Your task to perform on an android device: Open wifi settings Image 0: 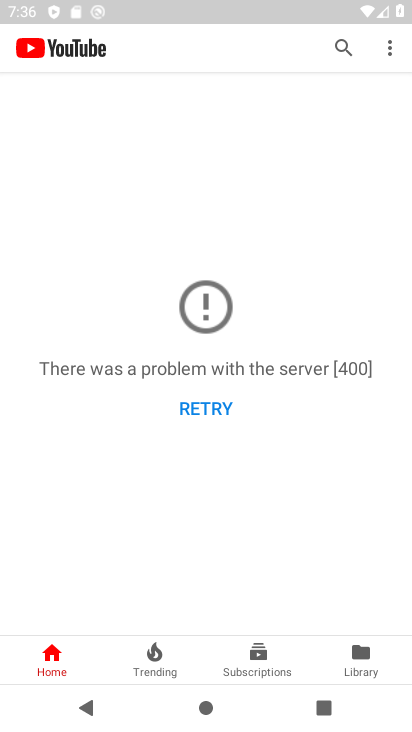
Step 0: press home button
Your task to perform on an android device: Open wifi settings Image 1: 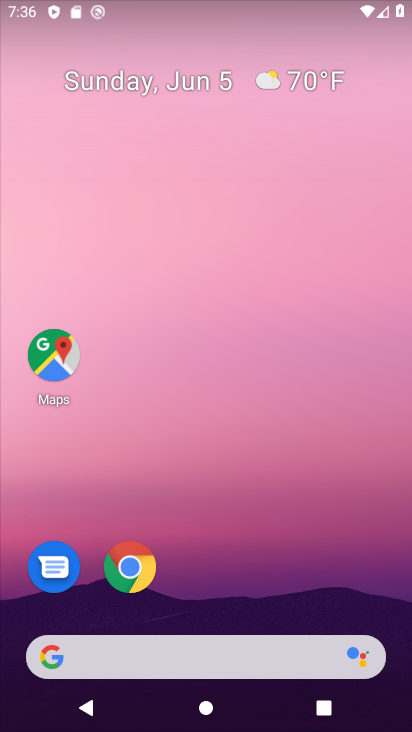
Step 1: drag from (182, 625) to (252, 149)
Your task to perform on an android device: Open wifi settings Image 2: 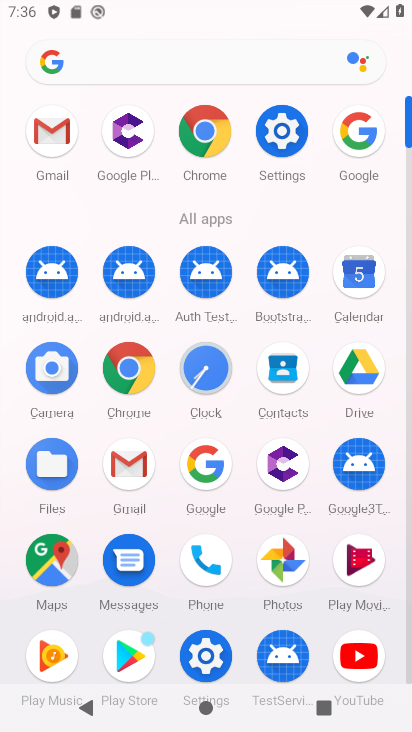
Step 2: click (270, 136)
Your task to perform on an android device: Open wifi settings Image 3: 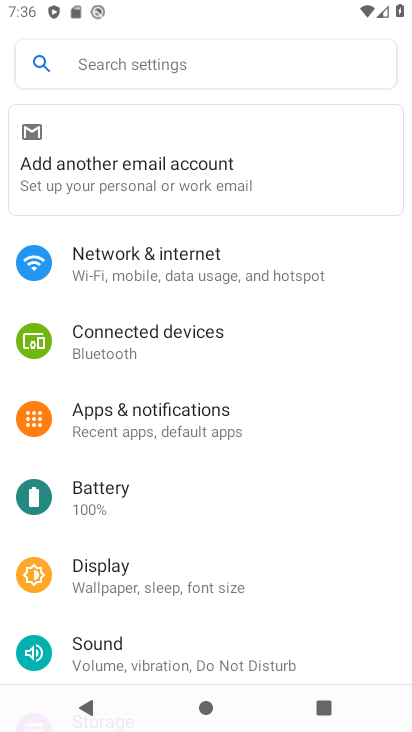
Step 3: click (149, 276)
Your task to perform on an android device: Open wifi settings Image 4: 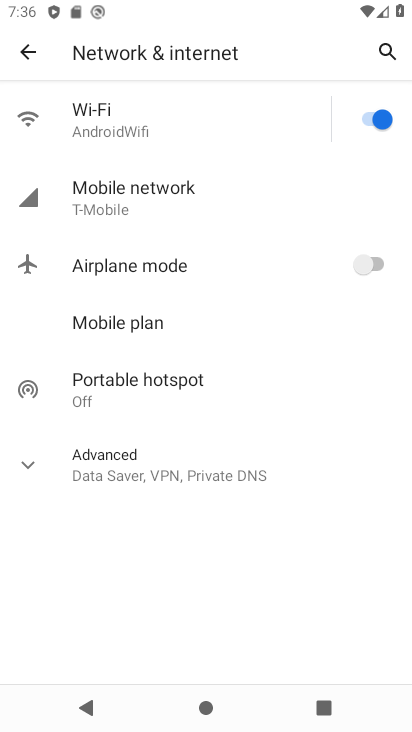
Step 4: click (106, 128)
Your task to perform on an android device: Open wifi settings Image 5: 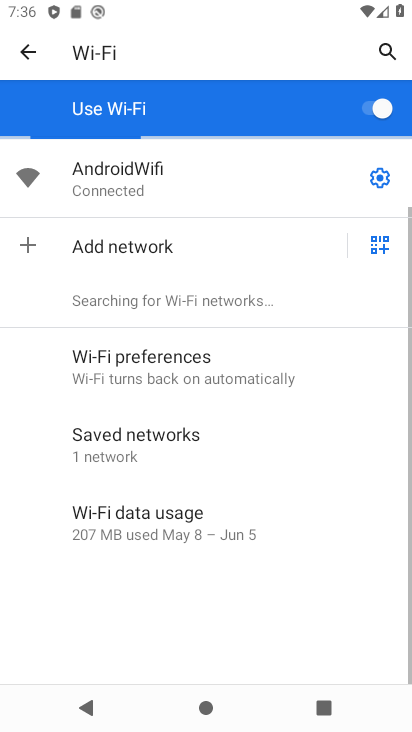
Step 5: task complete